Your task to perform on an android device: What is the news today? Image 0: 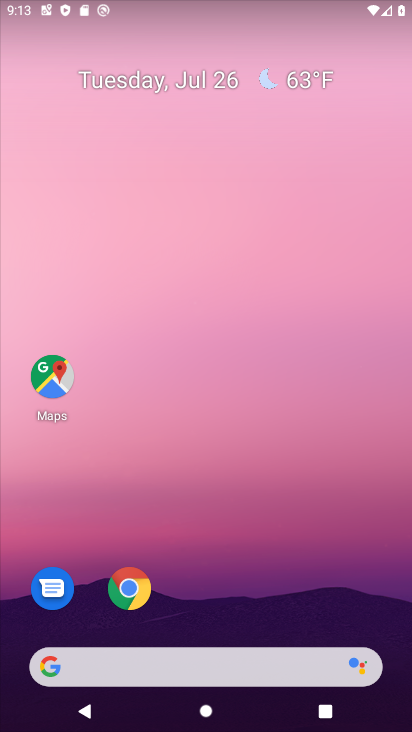
Step 0: click (201, 660)
Your task to perform on an android device: What is the news today? Image 1: 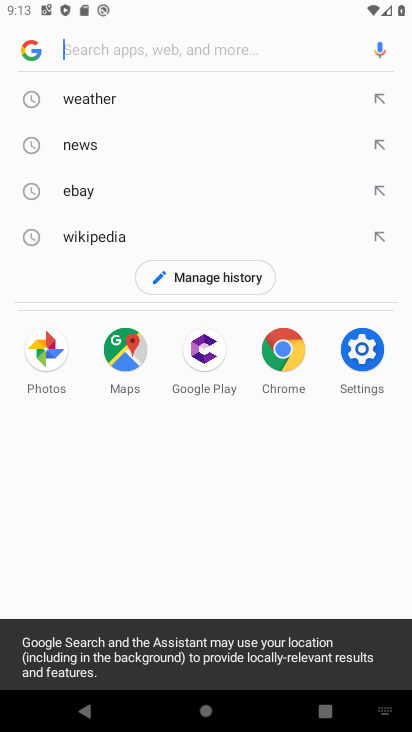
Step 1: click (28, 58)
Your task to perform on an android device: What is the news today? Image 2: 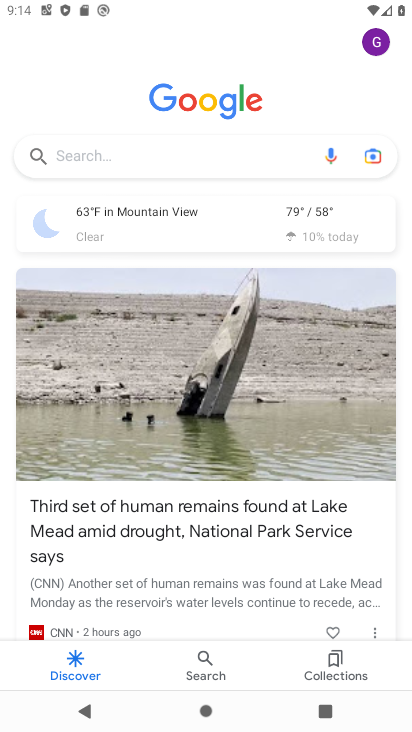
Step 2: task complete